Your task to perform on an android device: open app "Firefox Browser" (install if not already installed) and go to login screen Image 0: 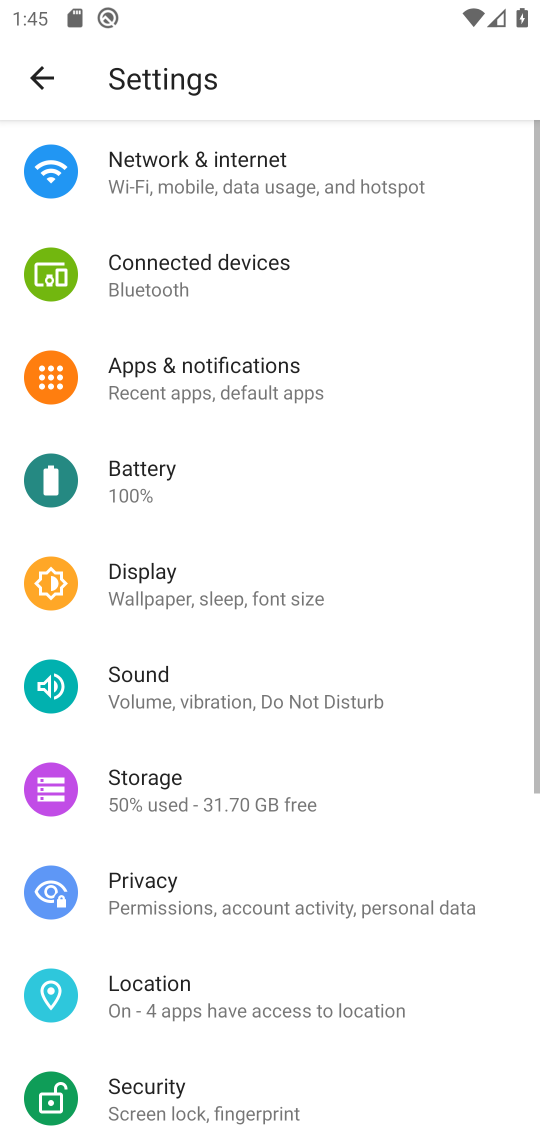
Step 0: press home button
Your task to perform on an android device: open app "Firefox Browser" (install if not already installed) and go to login screen Image 1: 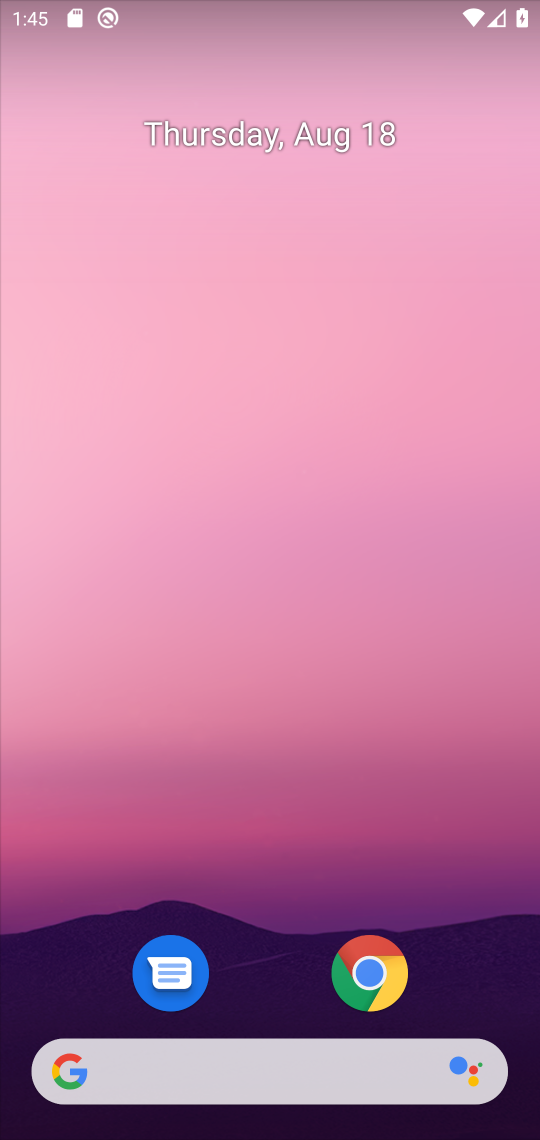
Step 1: click (396, 973)
Your task to perform on an android device: open app "Firefox Browser" (install if not already installed) and go to login screen Image 2: 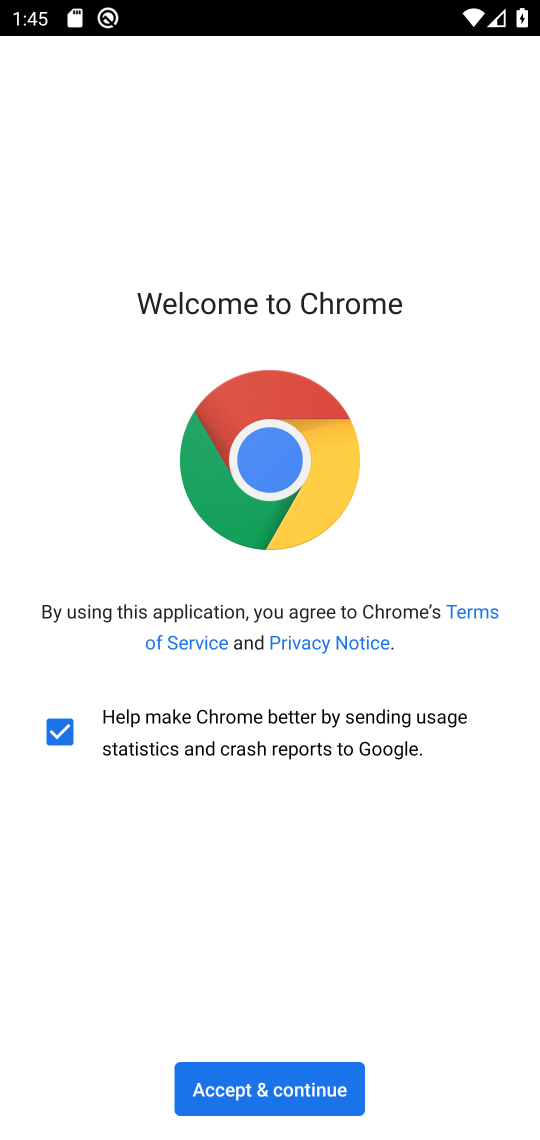
Step 2: click (274, 1069)
Your task to perform on an android device: open app "Firefox Browser" (install if not already installed) and go to login screen Image 3: 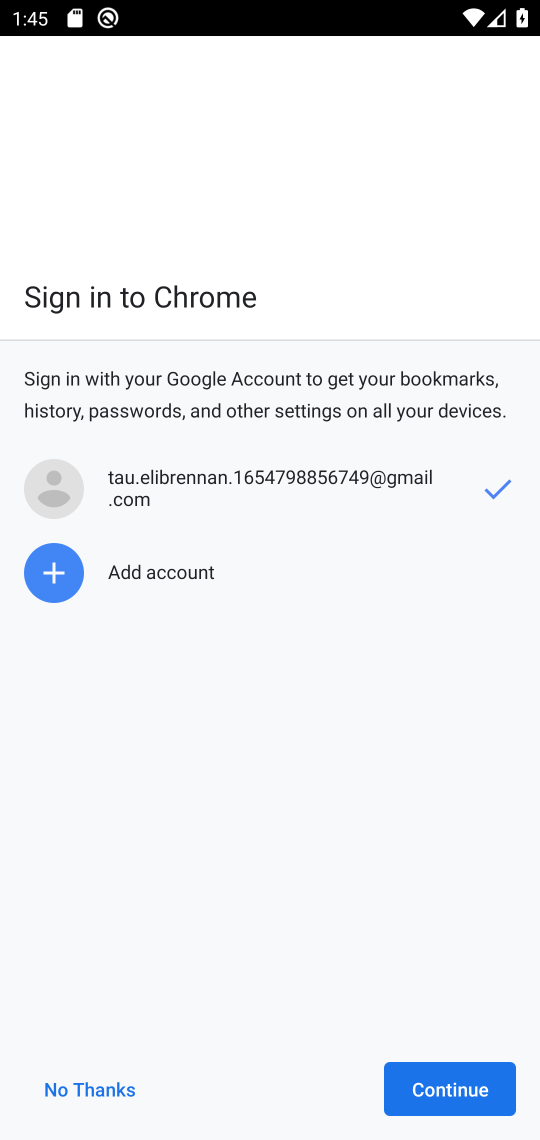
Step 3: click (487, 1082)
Your task to perform on an android device: open app "Firefox Browser" (install if not already installed) and go to login screen Image 4: 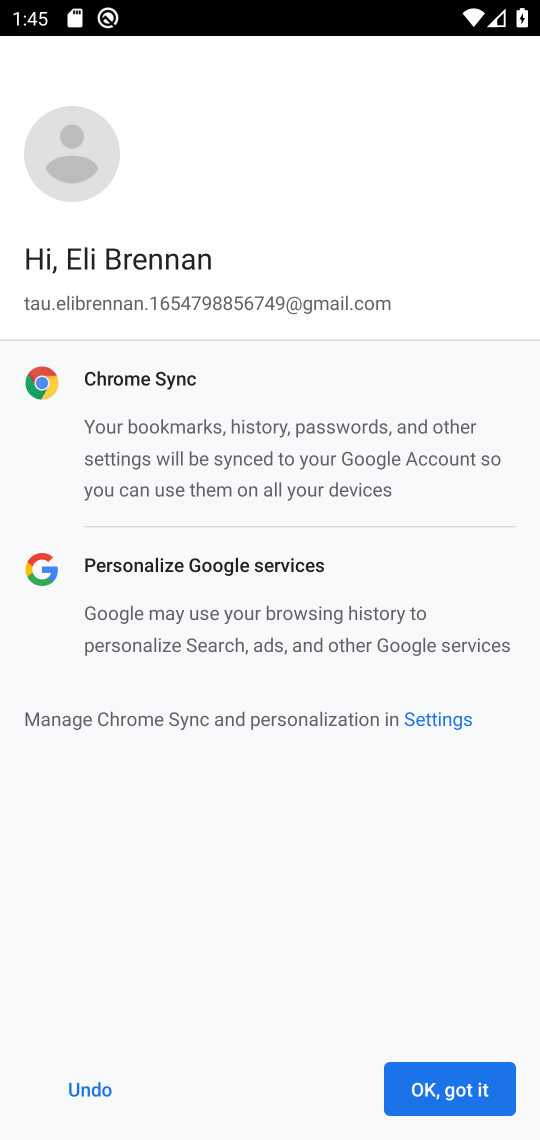
Step 4: click (487, 1082)
Your task to perform on an android device: open app "Firefox Browser" (install if not already installed) and go to login screen Image 5: 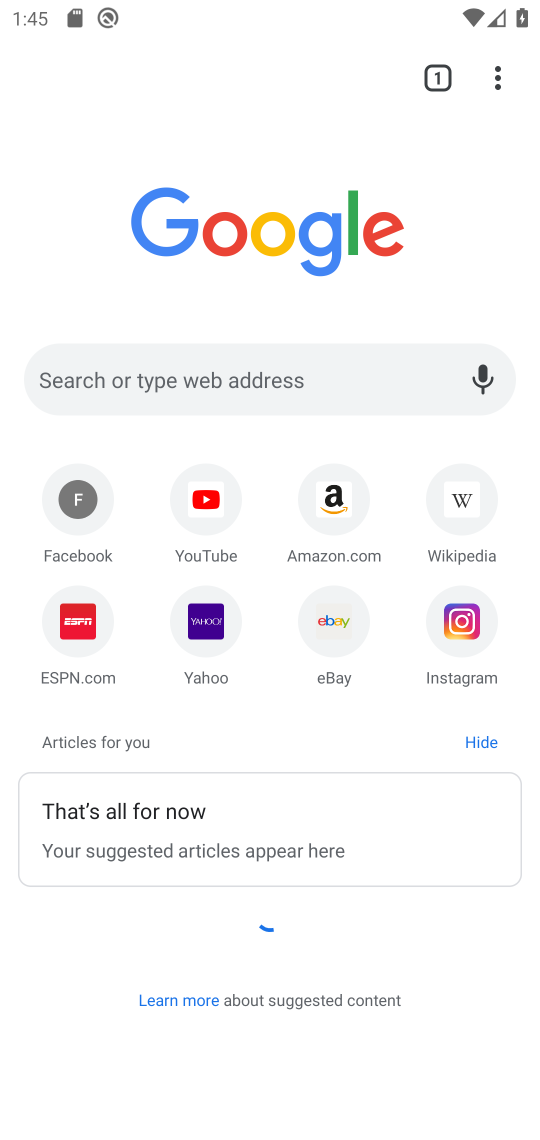
Step 5: press home button
Your task to perform on an android device: open app "Firefox Browser" (install if not already installed) and go to login screen Image 6: 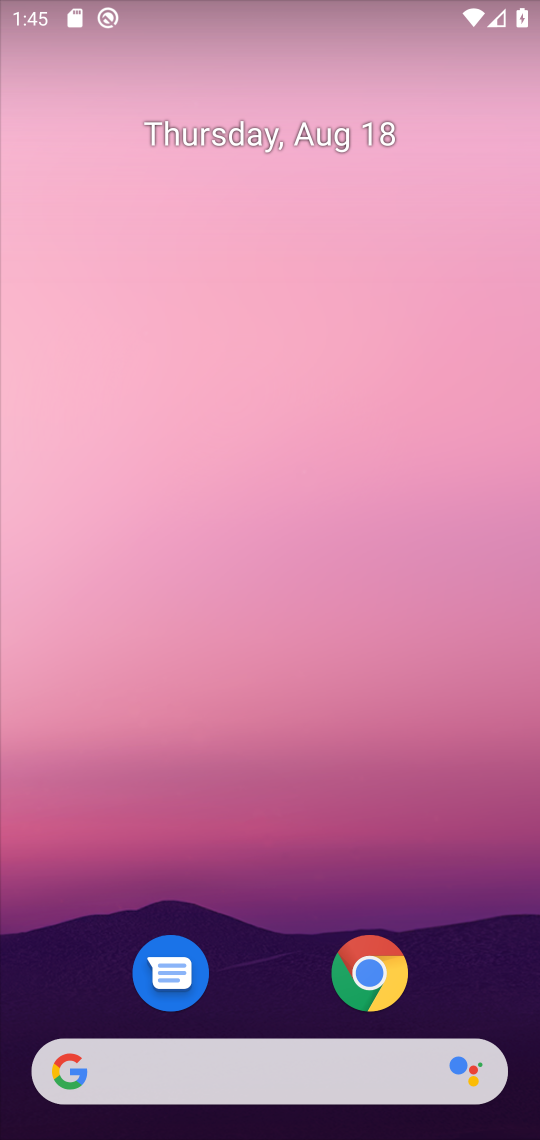
Step 6: drag from (273, 1016) to (298, 98)
Your task to perform on an android device: open app "Firefox Browser" (install if not already installed) and go to login screen Image 7: 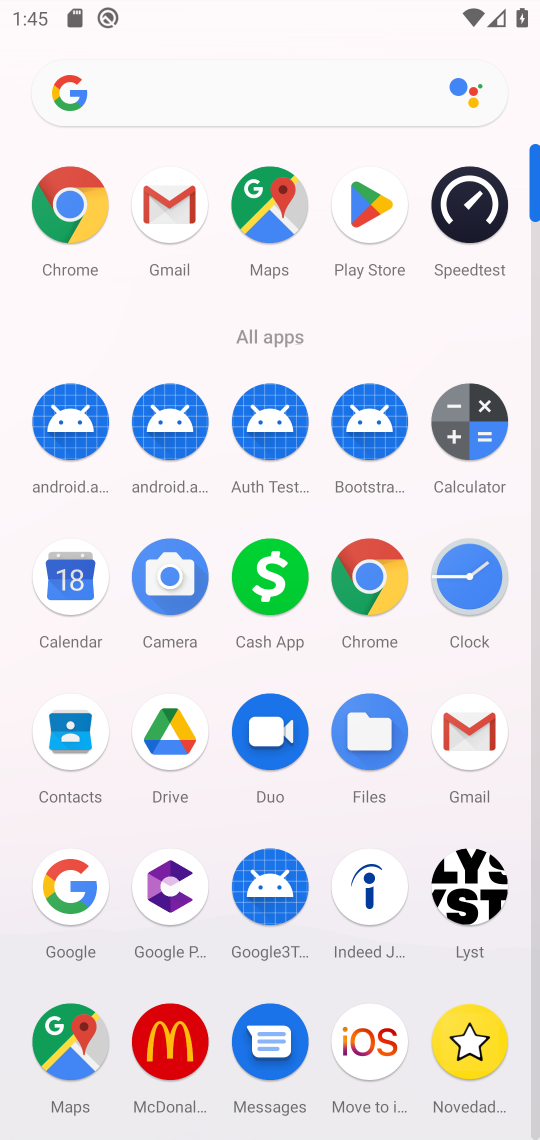
Step 7: click (396, 223)
Your task to perform on an android device: open app "Firefox Browser" (install if not already installed) and go to login screen Image 8: 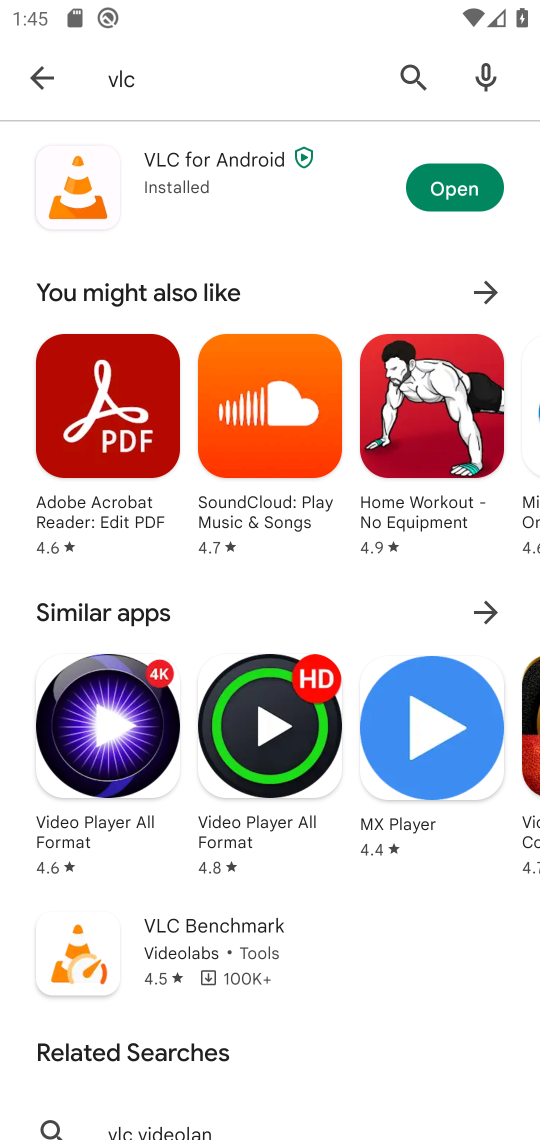
Step 8: click (424, 88)
Your task to perform on an android device: open app "Firefox Browser" (install if not already installed) and go to login screen Image 9: 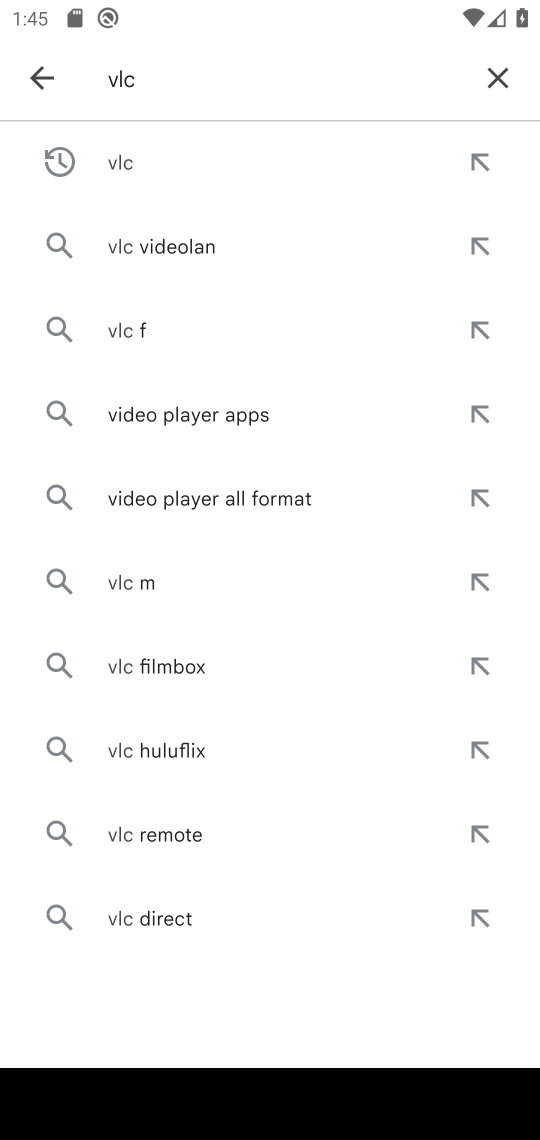
Step 9: click (488, 88)
Your task to perform on an android device: open app "Firefox Browser" (install if not already installed) and go to login screen Image 10: 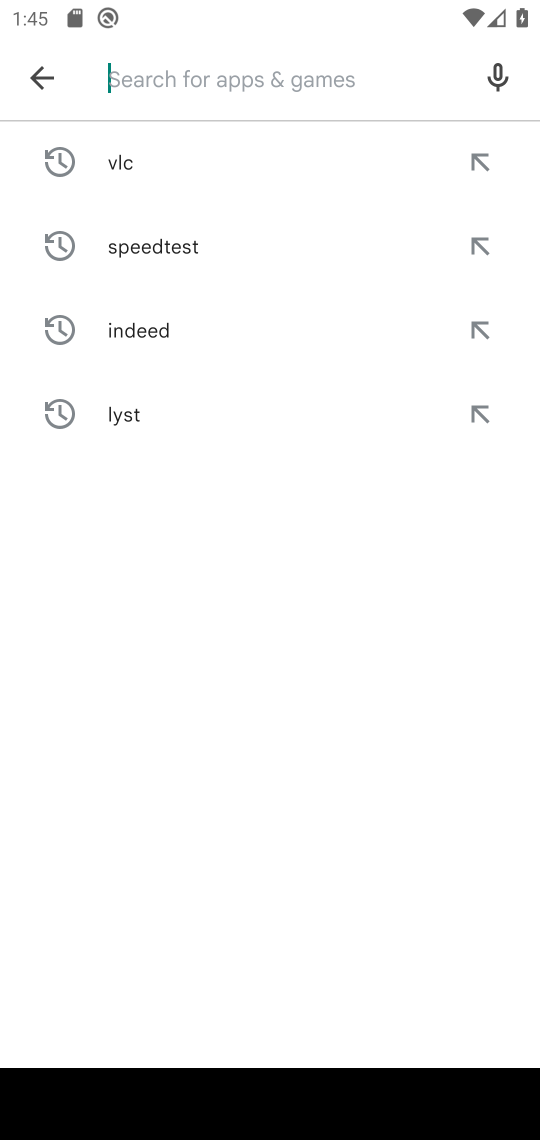
Step 10: type "firefox"
Your task to perform on an android device: open app "Firefox Browser" (install if not already installed) and go to login screen Image 11: 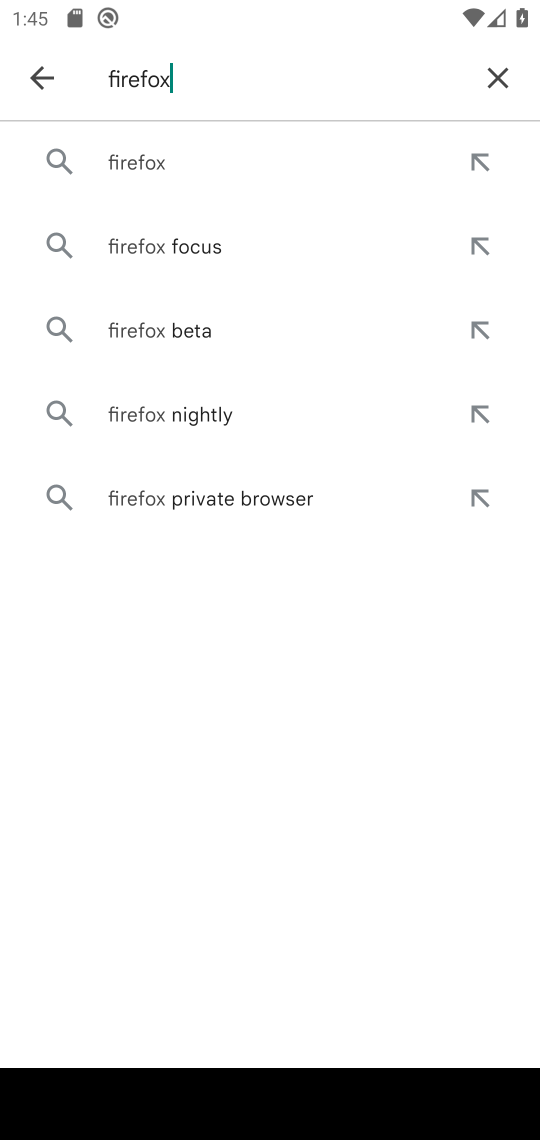
Step 11: click (177, 178)
Your task to perform on an android device: open app "Firefox Browser" (install if not already installed) and go to login screen Image 12: 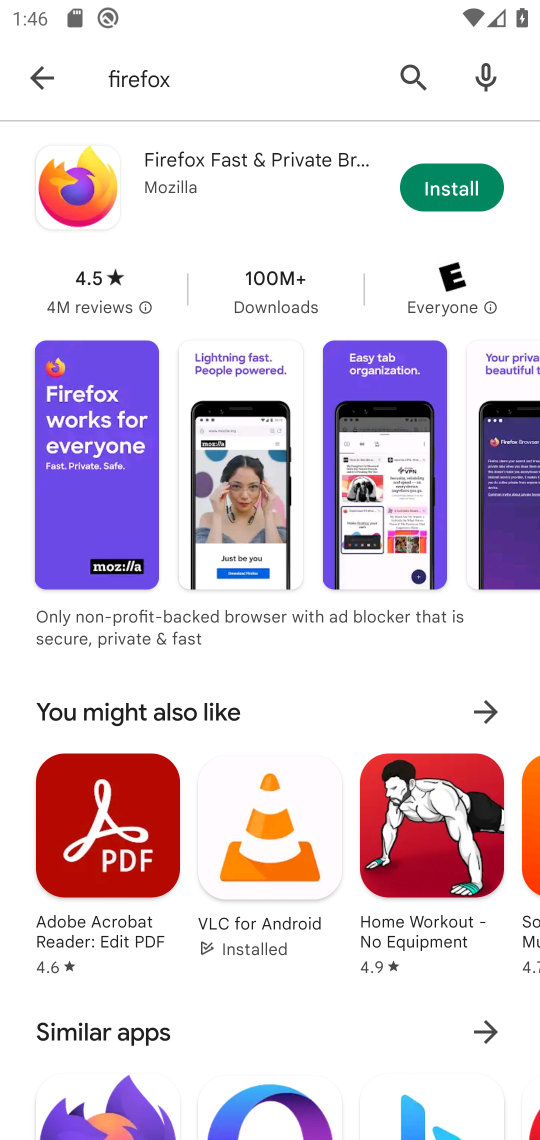
Step 12: click (449, 186)
Your task to perform on an android device: open app "Firefox Browser" (install if not already installed) and go to login screen Image 13: 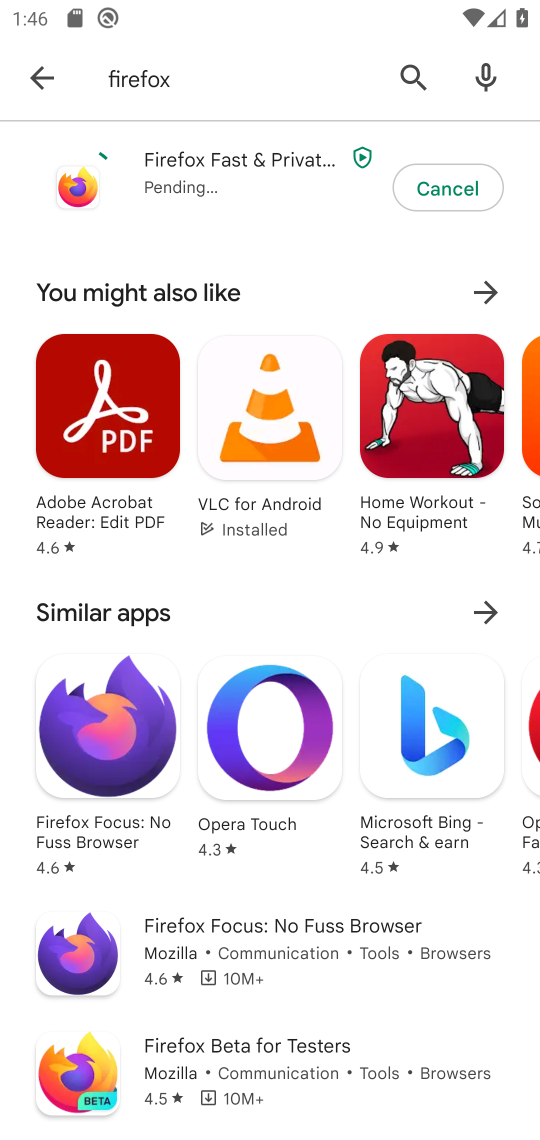
Step 13: task complete